Your task to perform on an android device: turn smart compose on in the gmail app Image 0: 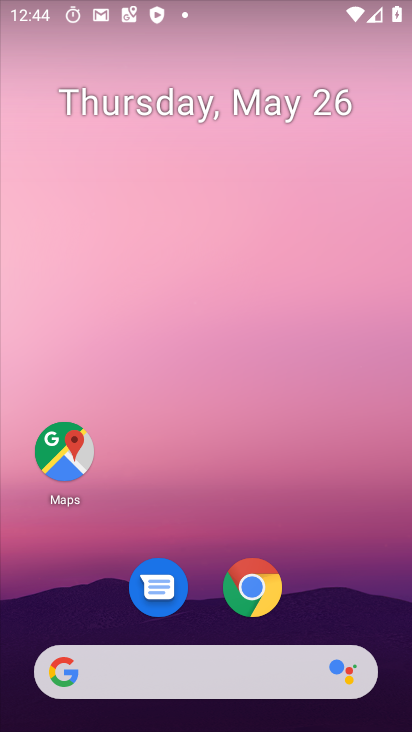
Step 0: press home button
Your task to perform on an android device: turn smart compose on in the gmail app Image 1: 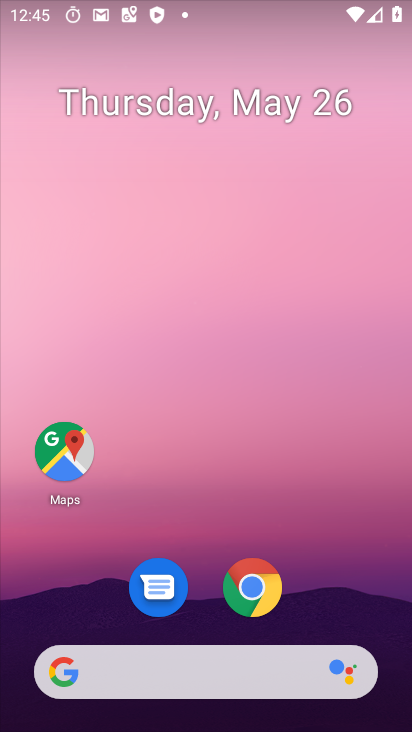
Step 1: drag from (328, 704) to (234, 175)
Your task to perform on an android device: turn smart compose on in the gmail app Image 2: 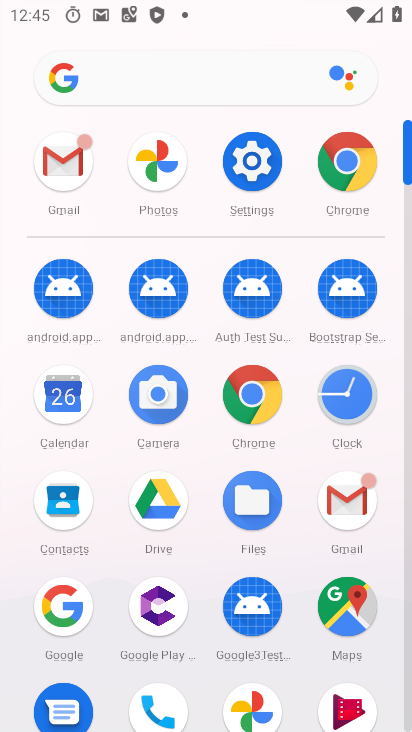
Step 2: click (97, 181)
Your task to perform on an android device: turn smart compose on in the gmail app Image 3: 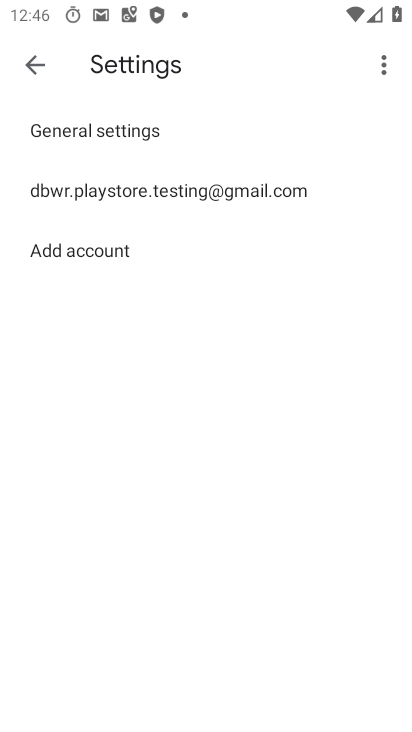
Step 3: click (122, 204)
Your task to perform on an android device: turn smart compose on in the gmail app Image 4: 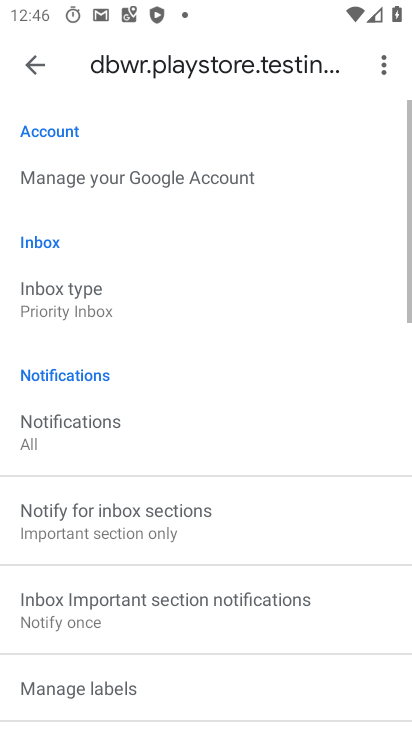
Step 4: drag from (255, 561) to (260, 176)
Your task to perform on an android device: turn smart compose on in the gmail app Image 5: 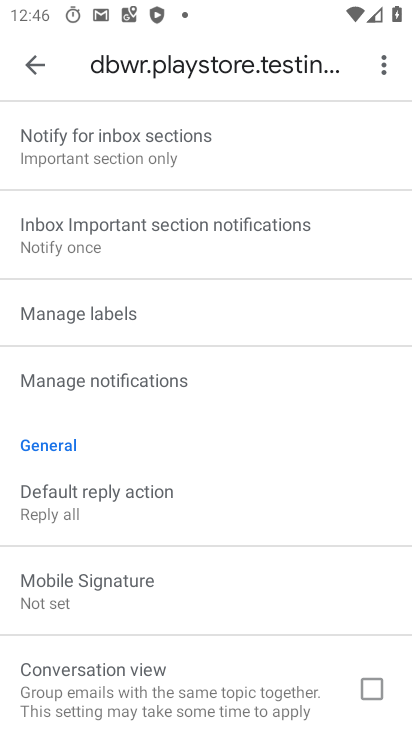
Step 5: drag from (284, 455) to (290, 281)
Your task to perform on an android device: turn smart compose on in the gmail app Image 6: 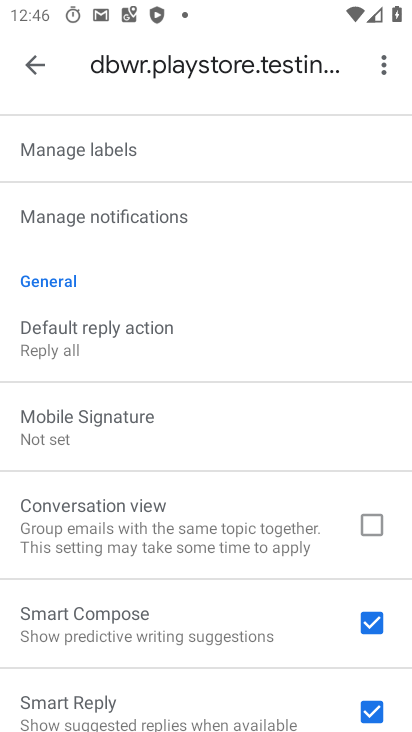
Step 6: drag from (276, 473) to (262, 269)
Your task to perform on an android device: turn smart compose on in the gmail app Image 7: 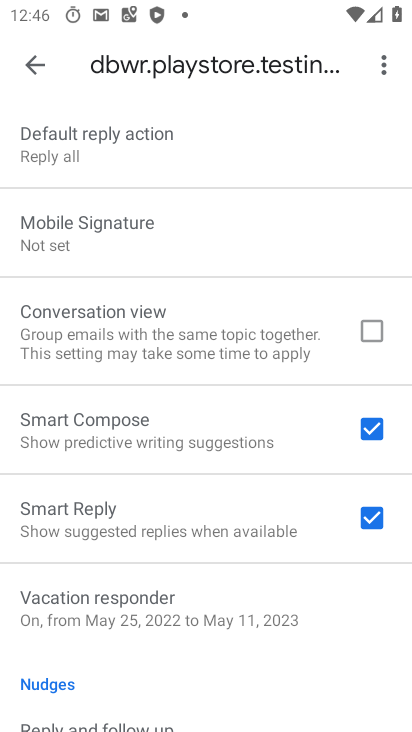
Step 7: click (360, 447)
Your task to perform on an android device: turn smart compose on in the gmail app Image 8: 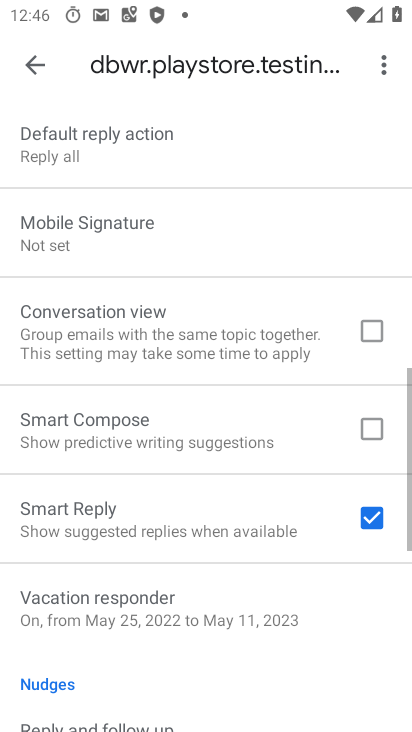
Step 8: click (362, 445)
Your task to perform on an android device: turn smart compose on in the gmail app Image 9: 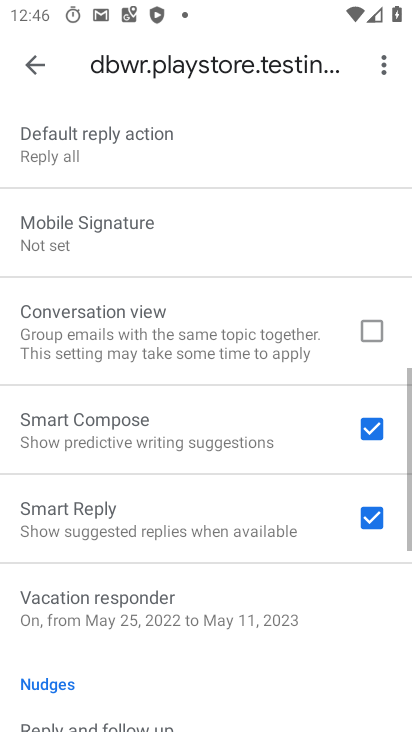
Step 9: task complete